Your task to perform on an android device: change the clock display to digital Image 0: 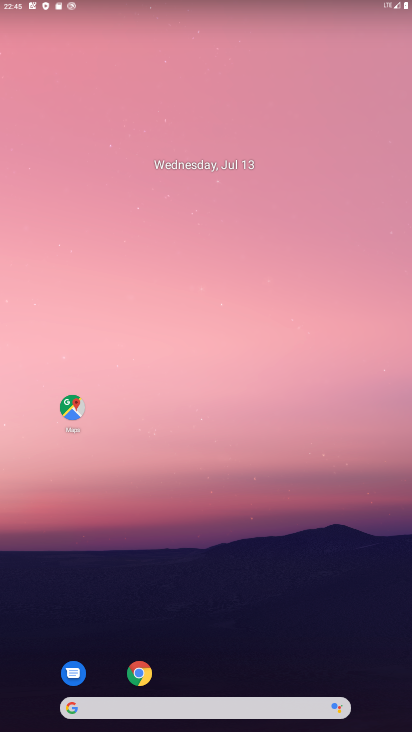
Step 0: click (354, 61)
Your task to perform on an android device: change the clock display to digital Image 1: 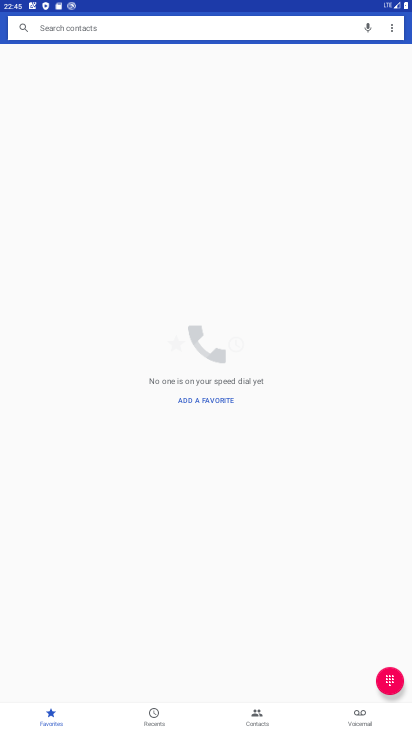
Step 1: drag from (165, 519) to (198, 316)
Your task to perform on an android device: change the clock display to digital Image 2: 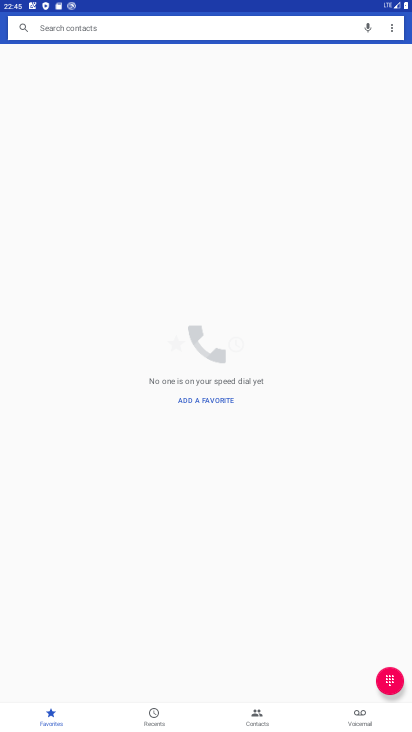
Step 2: press home button
Your task to perform on an android device: change the clock display to digital Image 3: 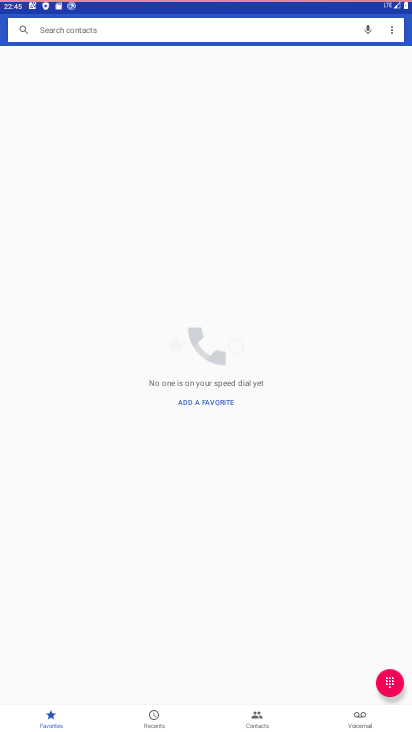
Step 3: drag from (295, 578) to (355, 2)
Your task to perform on an android device: change the clock display to digital Image 4: 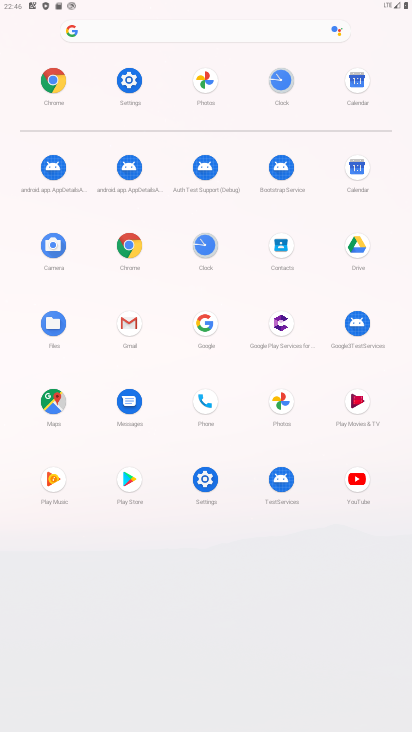
Step 4: click (211, 257)
Your task to perform on an android device: change the clock display to digital Image 5: 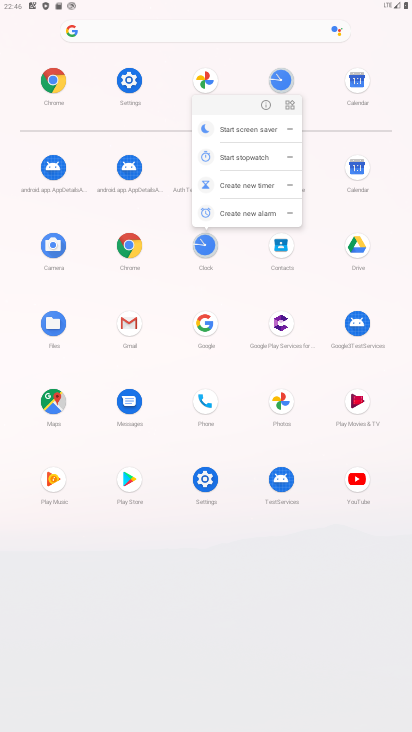
Step 5: click (262, 106)
Your task to perform on an android device: change the clock display to digital Image 6: 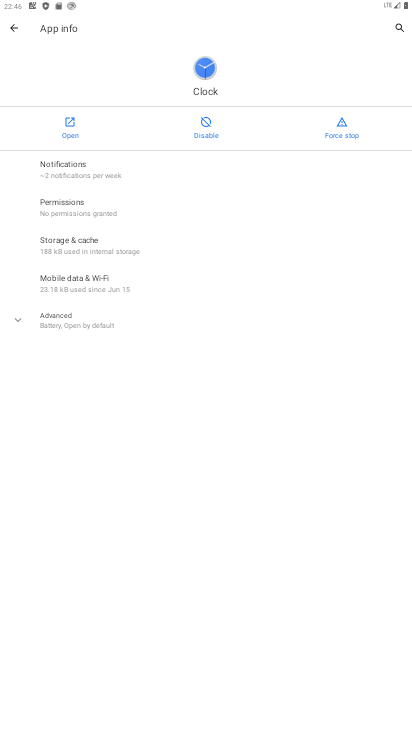
Step 6: drag from (164, 462) to (193, 217)
Your task to perform on an android device: change the clock display to digital Image 7: 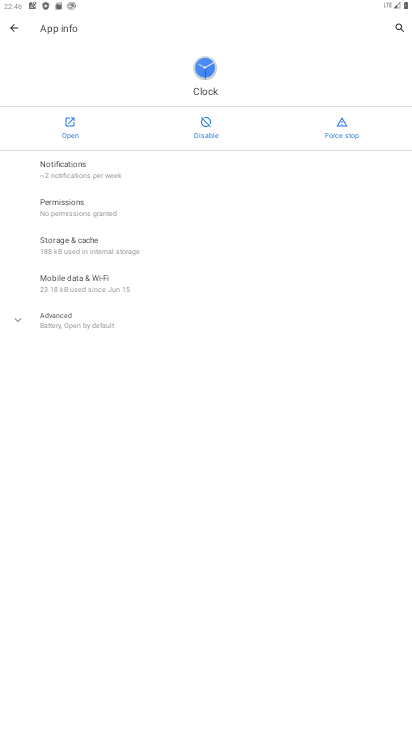
Step 7: click (64, 113)
Your task to perform on an android device: change the clock display to digital Image 8: 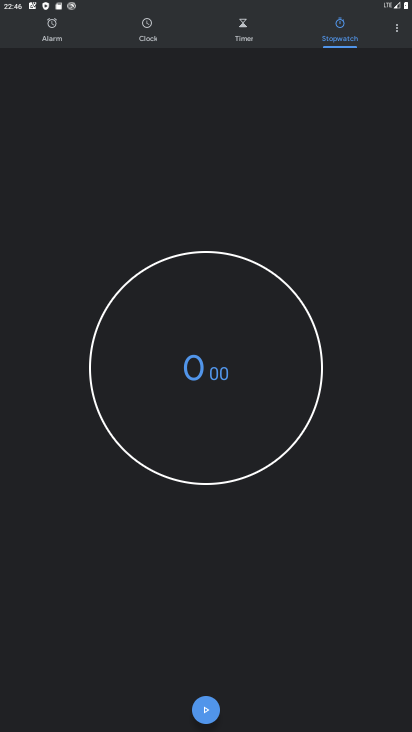
Step 8: click (402, 30)
Your task to perform on an android device: change the clock display to digital Image 9: 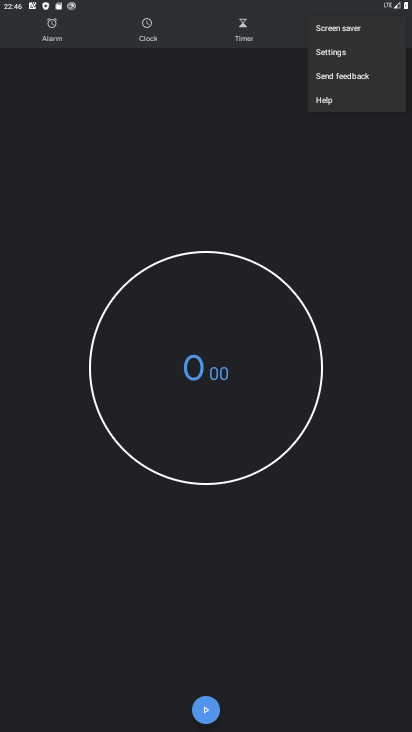
Step 9: click (351, 48)
Your task to perform on an android device: change the clock display to digital Image 10: 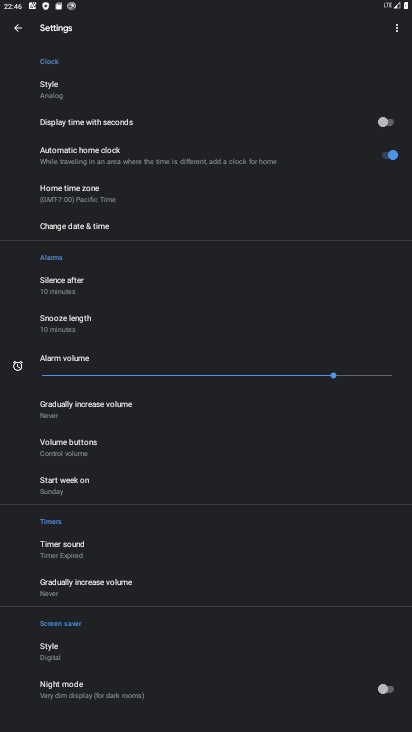
Step 10: click (92, 88)
Your task to perform on an android device: change the clock display to digital Image 11: 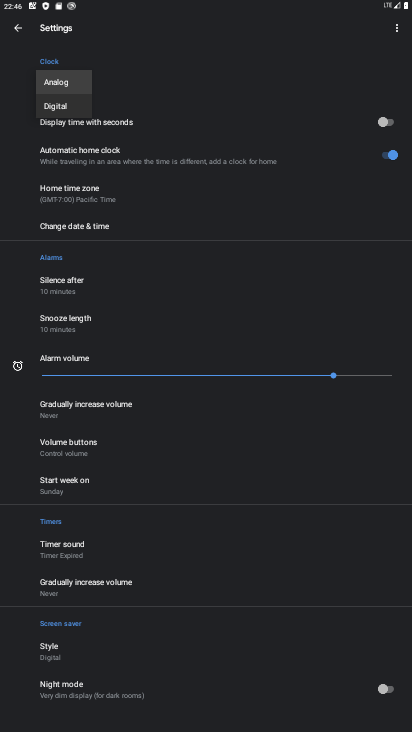
Step 11: click (58, 105)
Your task to perform on an android device: change the clock display to digital Image 12: 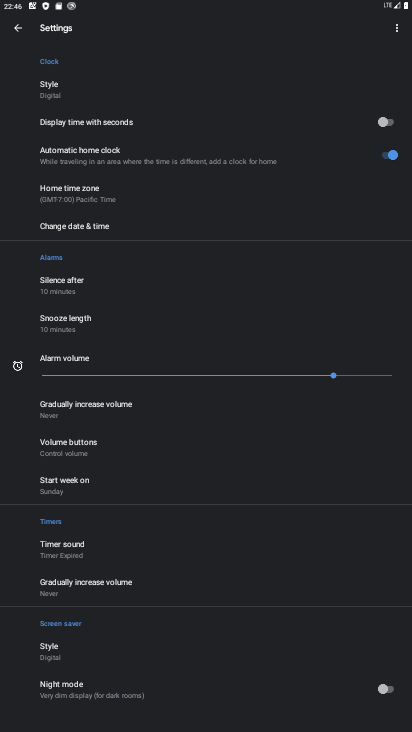
Step 12: task complete